Your task to perform on an android device: Go to CNN.com Image 0: 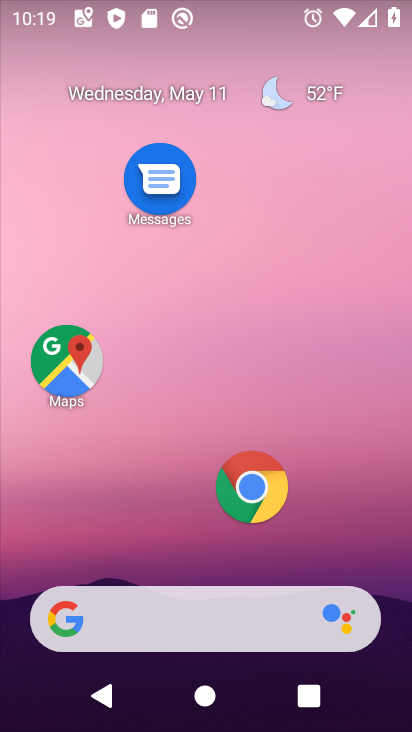
Step 0: click (261, 505)
Your task to perform on an android device: Go to CNN.com Image 1: 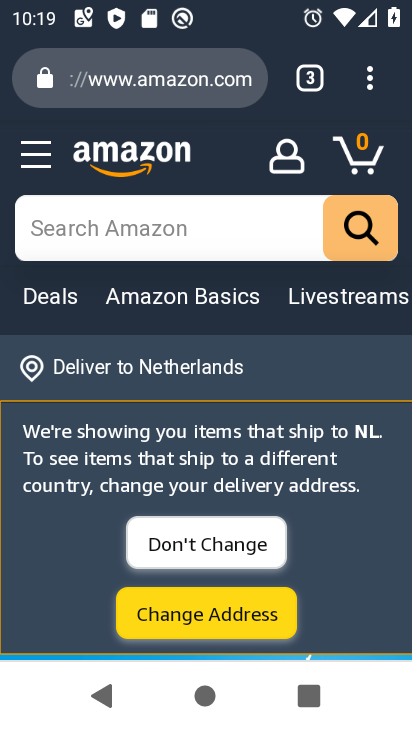
Step 1: click (321, 77)
Your task to perform on an android device: Go to CNN.com Image 2: 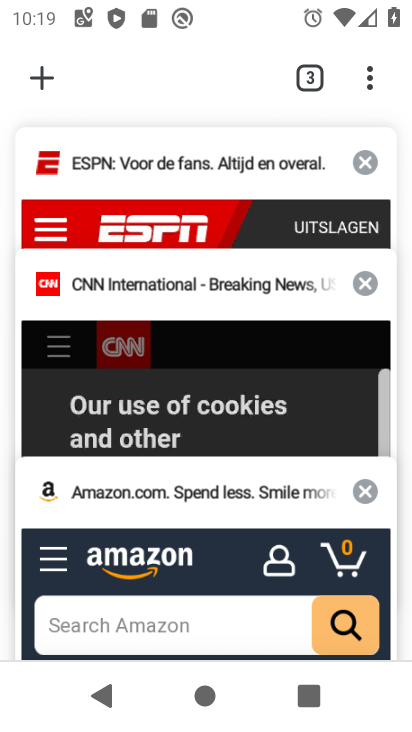
Step 2: click (120, 359)
Your task to perform on an android device: Go to CNN.com Image 3: 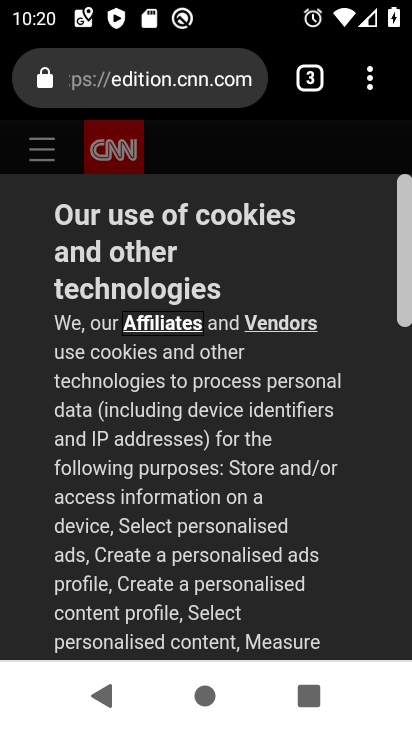
Step 3: task complete